Your task to perform on an android device: Open sound settings Image 0: 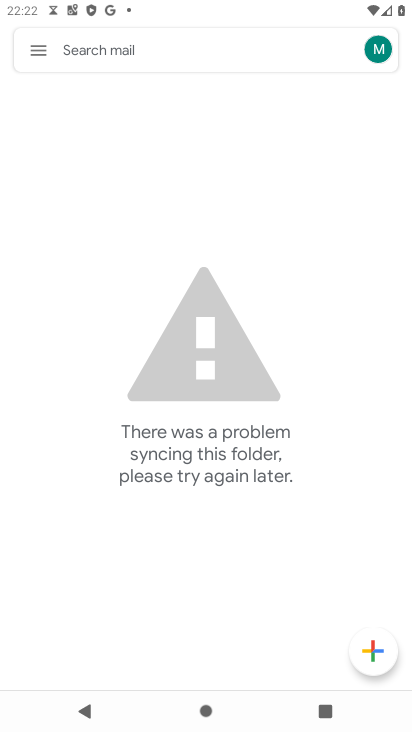
Step 0: press home button
Your task to perform on an android device: Open sound settings Image 1: 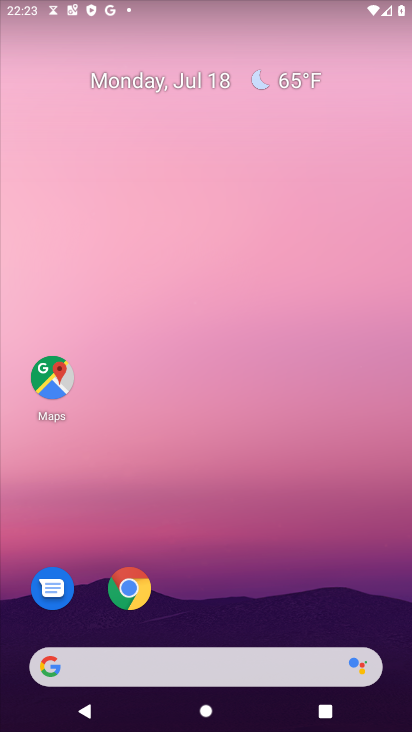
Step 1: drag from (212, 659) to (222, 155)
Your task to perform on an android device: Open sound settings Image 2: 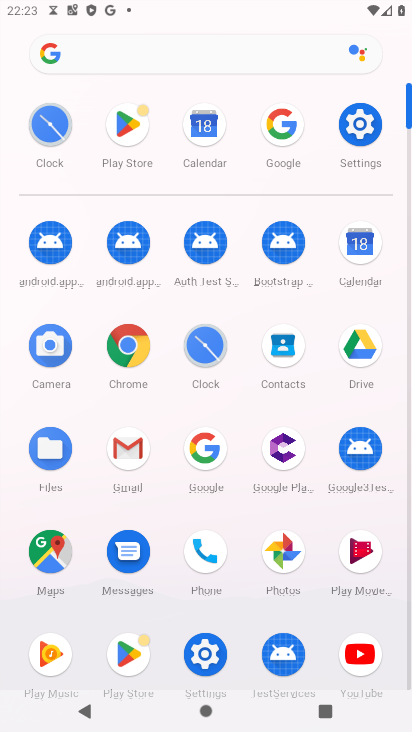
Step 2: click (360, 124)
Your task to perform on an android device: Open sound settings Image 3: 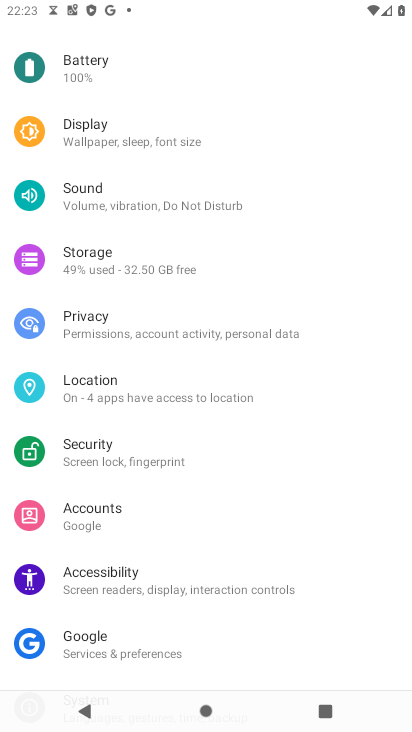
Step 3: click (181, 200)
Your task to perform on an android device: Open sound settings Image 4: 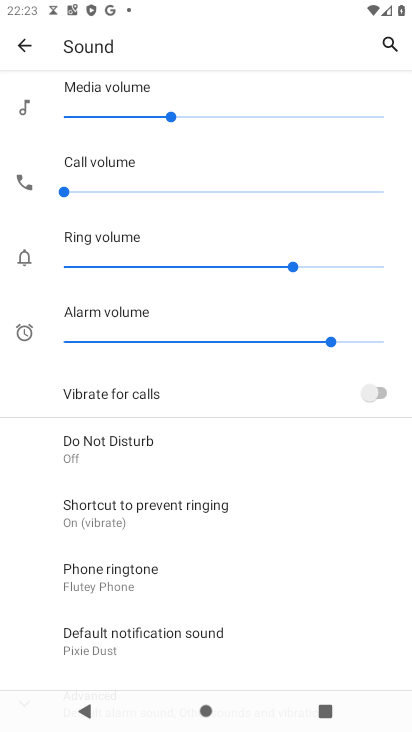
Step 4: task complete